Your task to perform on an android device: change keyboard looks Image 0: 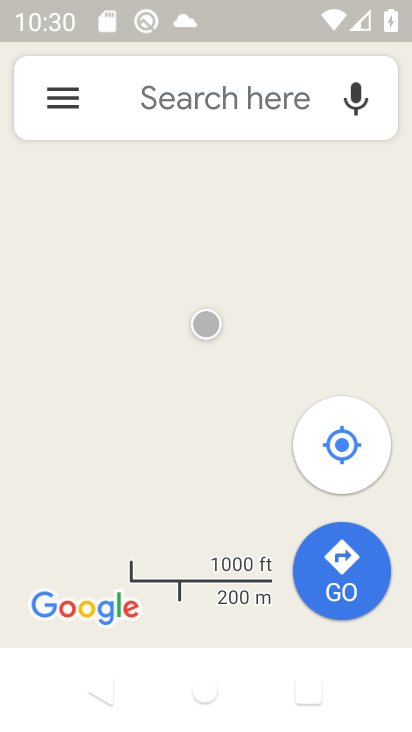
Step 0: press home button
Your task to perform on an android device: change keyboard looks Image 1: 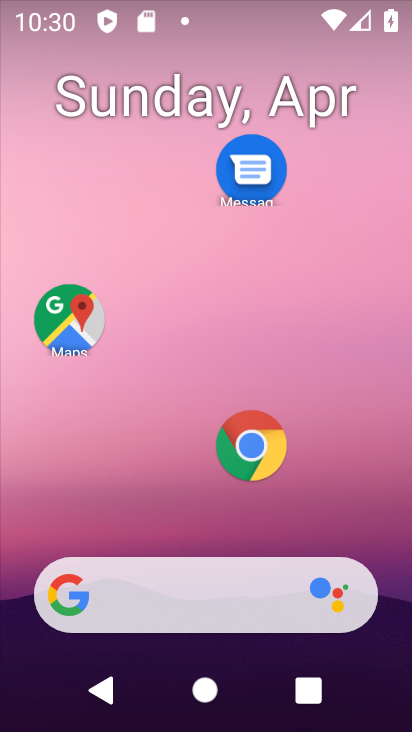
Step 1: drag from (217, 583) to (331, 45)
Your task to perform on an android device: change keyboard looks Image 2: 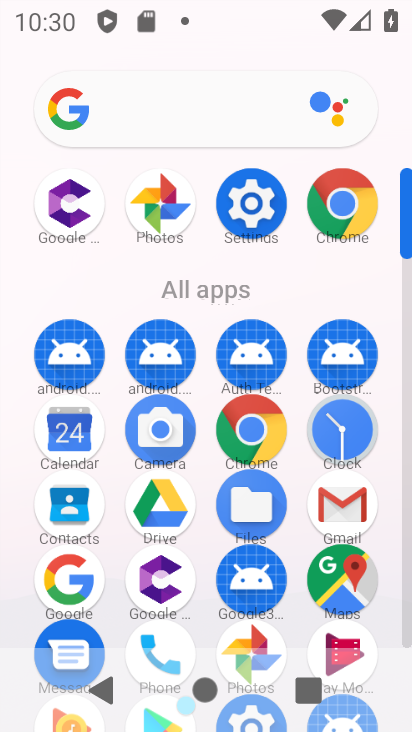
Step 2: click (252, 215)
Your task to perform on an android device: change keyboard looks Image 3: 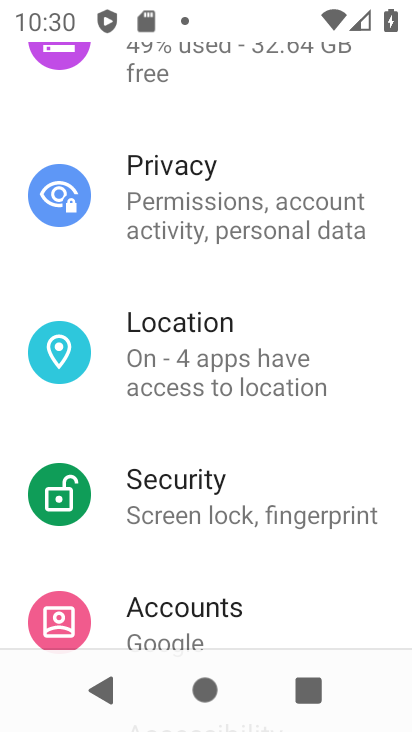
Step 3: drag from (228, 586) to (360, 277)
Your task to perform on an android device: change keyboard looks Image 4: 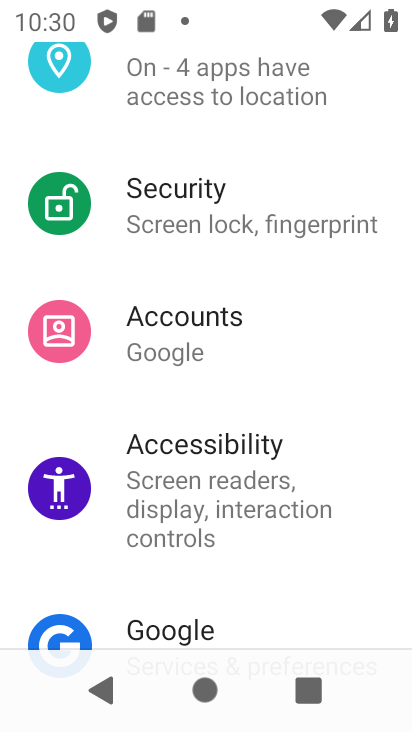
Step 4: drag from (224, 594) to (350, 253)
Your task to perform on an android device: change keyboard looks Image 5: 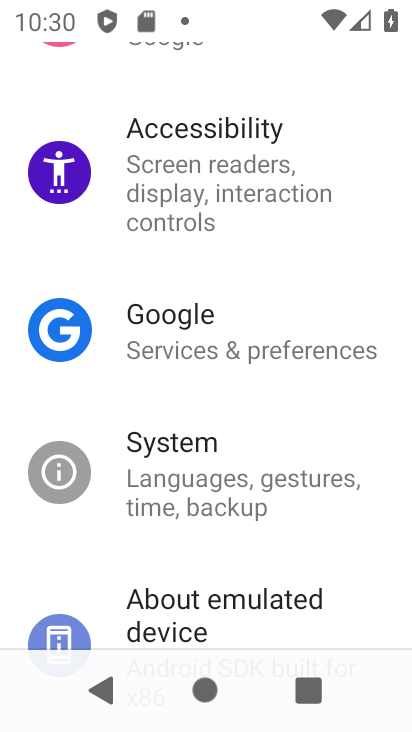
Step 5: click (205, 466)
Your task to perform on an android device: change keyboard looks Image 6: 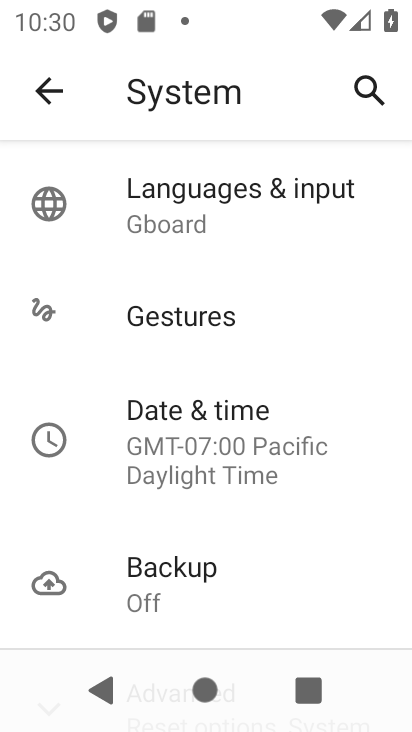
Step 6: click (162, 216)
Your task to perform on an android device: change keyboard looks Image 7: 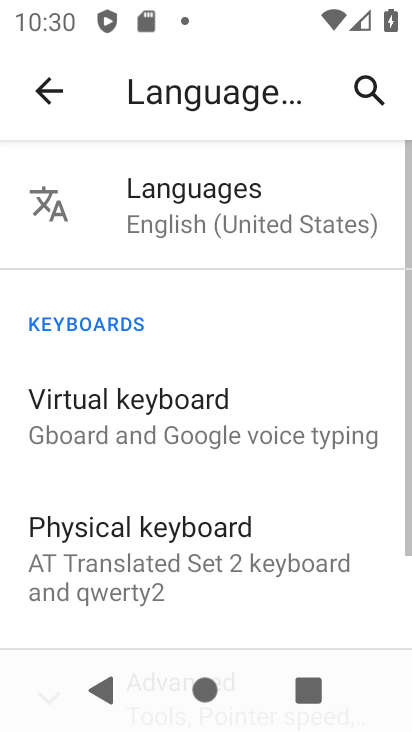
Step 7: click (115, 409)
Your task to perform on an android device: change keyboard looks Image 8: 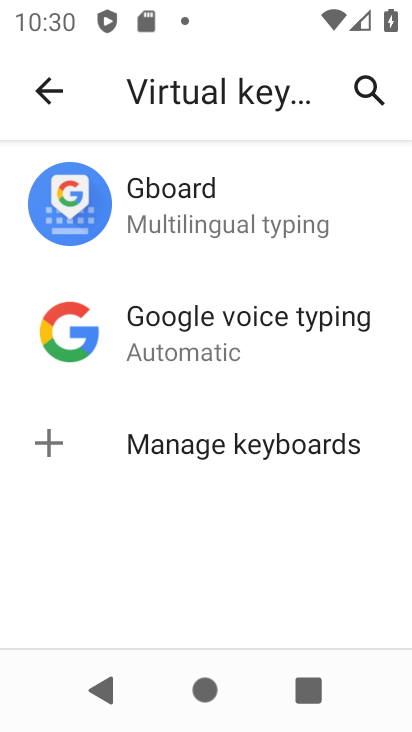
Step 8: click (262, 201)
Your task to perform on an android device: change keyboard looks Image 9: 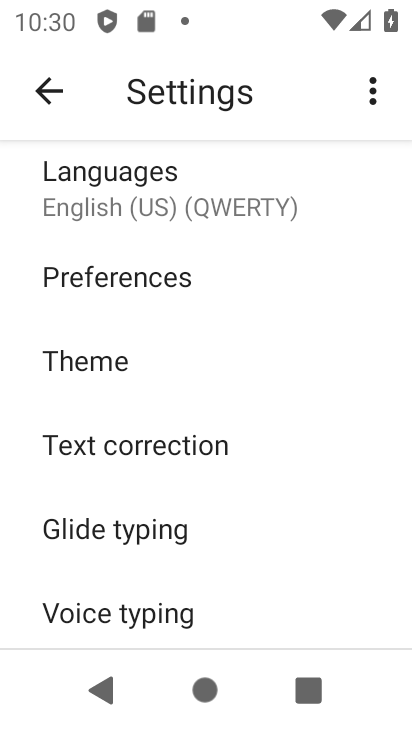
Step 9: click (104, 363)
Your task to perform on an android device: change keyboard looks Image 10: 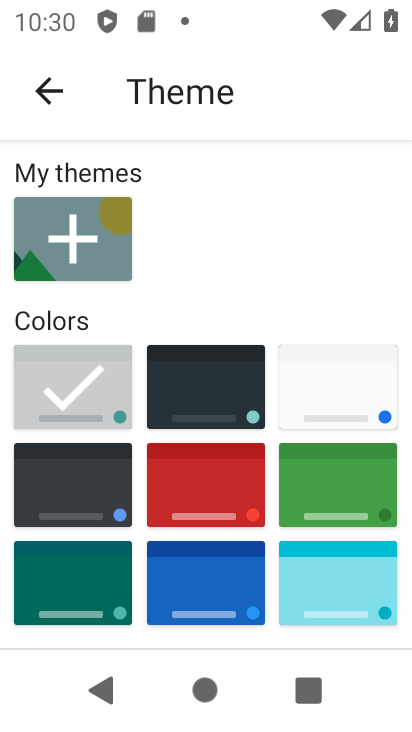
Step 10: click (219, 497)
Your task to perform on an android device: change keyboard looks Image 11: 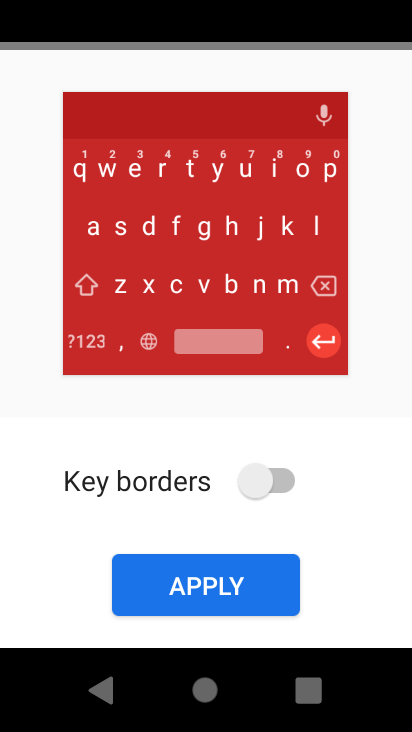
Step 11: click (194, 589)
Your task to perform on an android device: change keyboard looks Image 12: 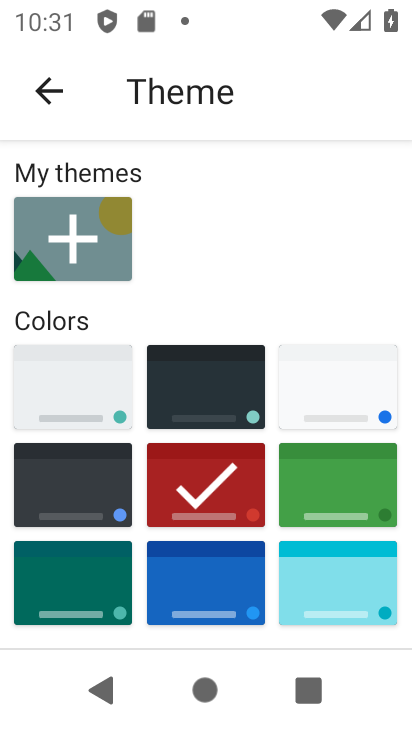
Step 12: task complete